Your task to perform on an android device: show emergency info Image 0: 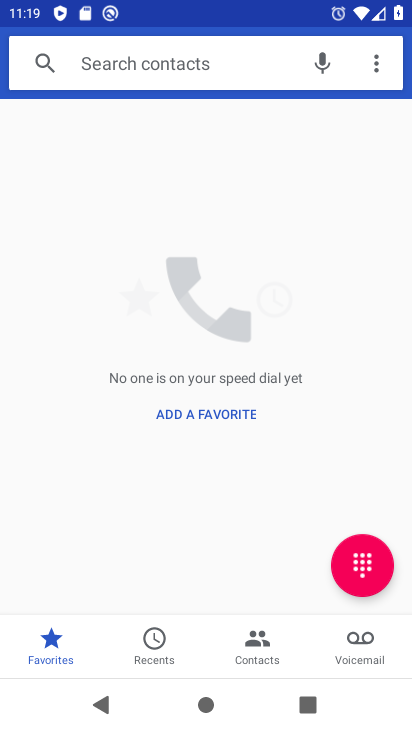
Step 0: press back button
Your task to perform on an android device: show emergency info Image 1: 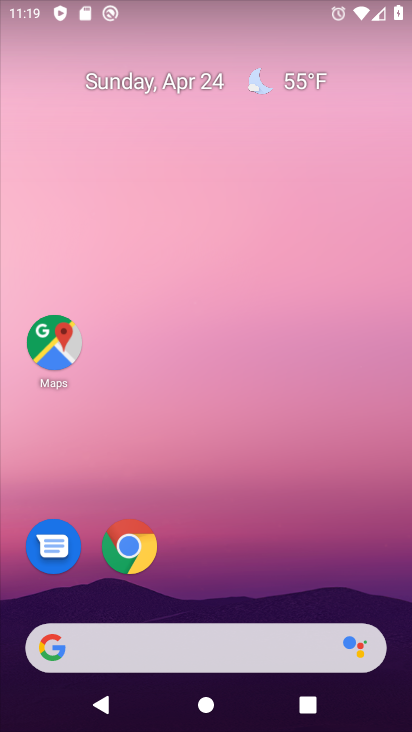
Step 1: drag from (236, 566) to (202, 10)
Your task to perform on an android device: show emergency info Image 2: 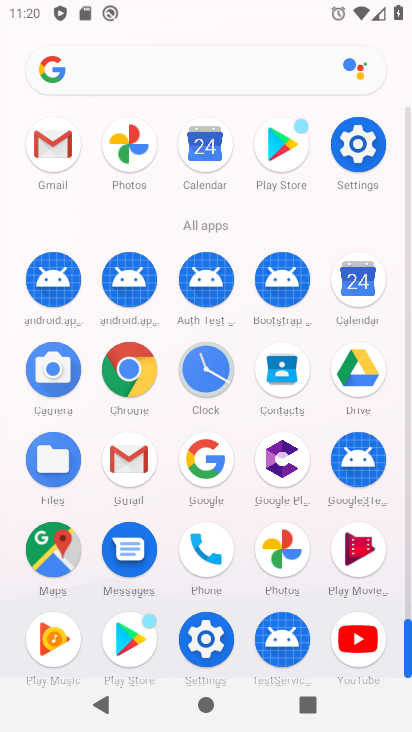
Step 2: click (359, 144)
Your task to perform on an android device: show emergency info Image 3: 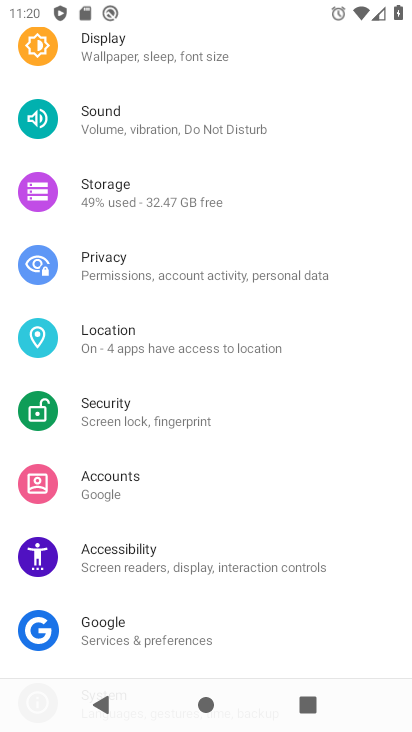
Step 3: drag from (159, 493) to (197, 416)
Your task to perform on an android device: show emergency info Image 4: 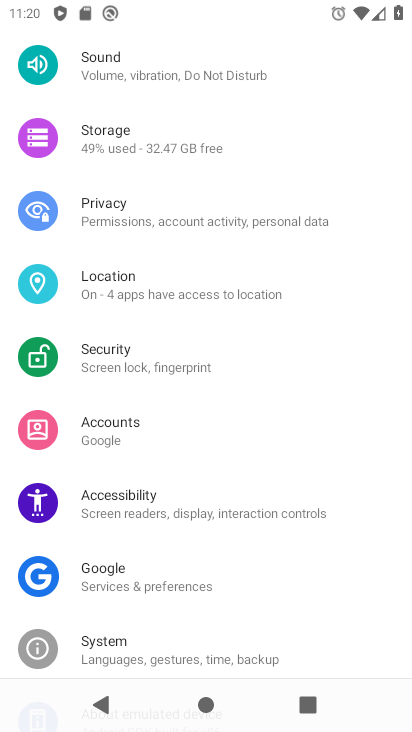
Step 4: drag from (157, 551) to (198, 485)
Your task to perform on an android device: show emergency info Image 5: 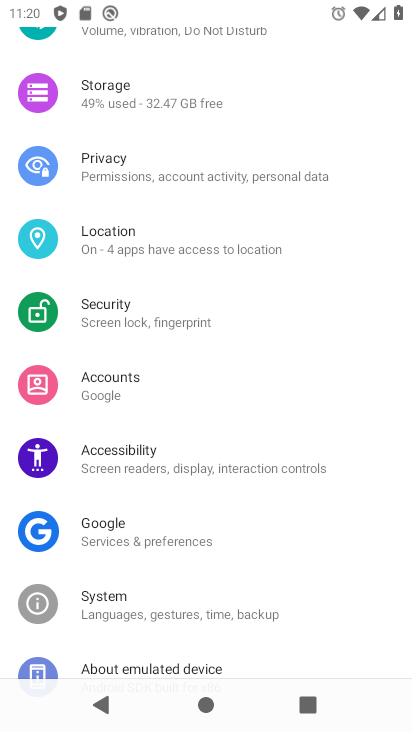
Step 5: drag from (147, 570) to (216, 434)
Your task to perform on an android device: show emergency info Image 6: 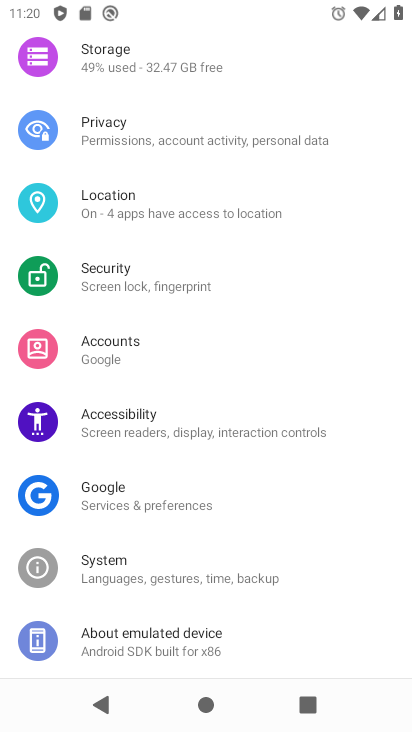
Step 6: click (154, 636)
Your task to perform on an android device: show emergency info Image 7: 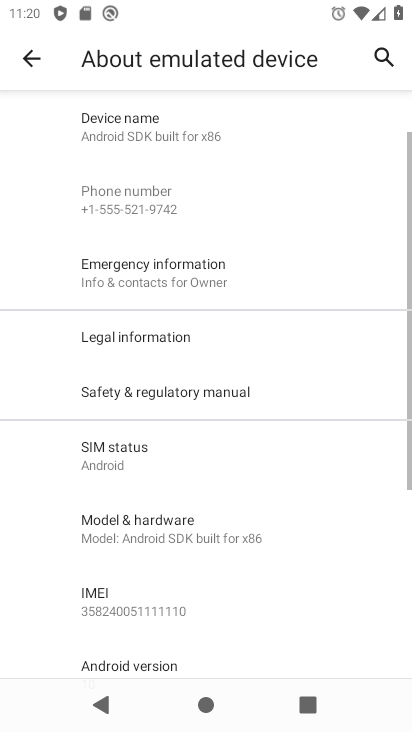
Step 7: click (149, 278)
Your task to perform on an android device: show emergency info Image 8: 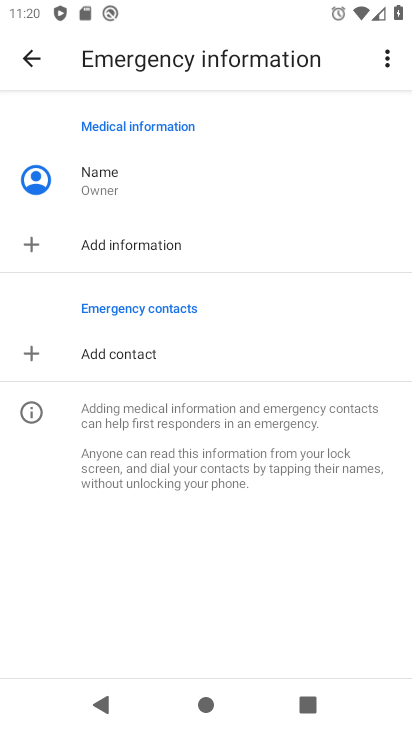
Step 8: task complete